Your task to perform on an android device: delete a single message in the gmail app Image 0: 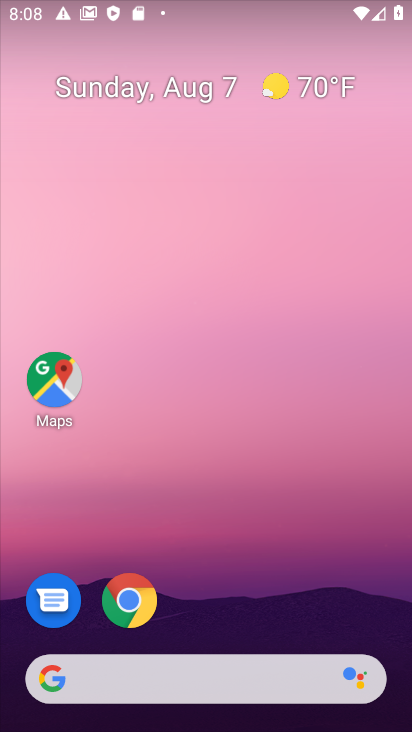
Step 0: drag from (172, 626) to (172, 57)
Your task to perform on an android device: delete a single message in the gmail app Image 1: 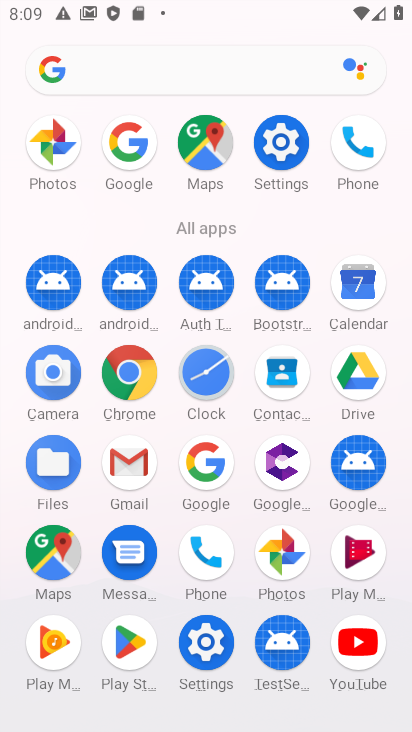
Step 1: click (127, 449)
Your task to perform on an android device: delete a single message in the gmail app Image 2: 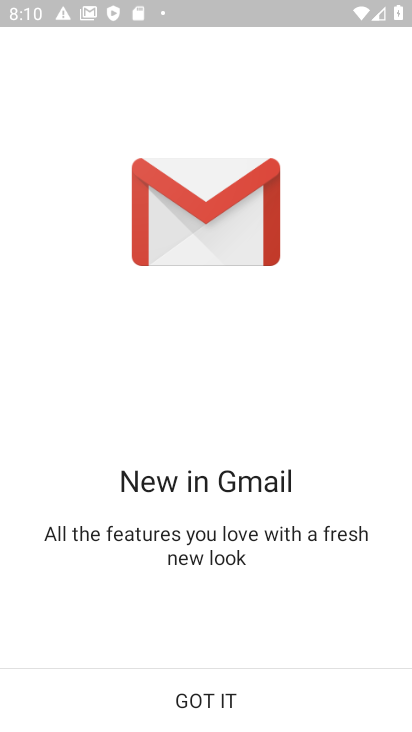
Step 2: click (182, 694)
Your task to perform on an android device: delete a single message in the gmail app Image 3: 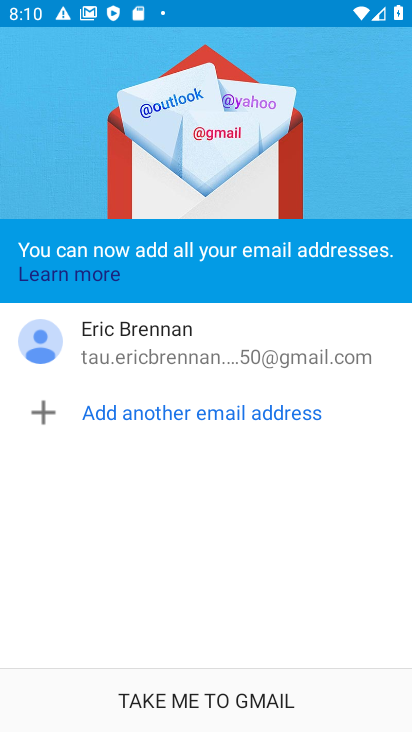
Step 3: click (182, 694)
Your task to perform on an android device: delete a single message in the gmail app Image 4: 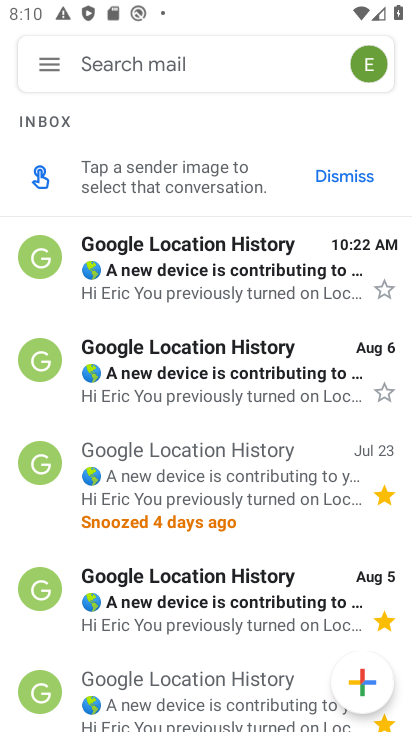
Step 4: click (297, 290)
Your task to perform on an android device: delete a single message in the gmail app Image 5: 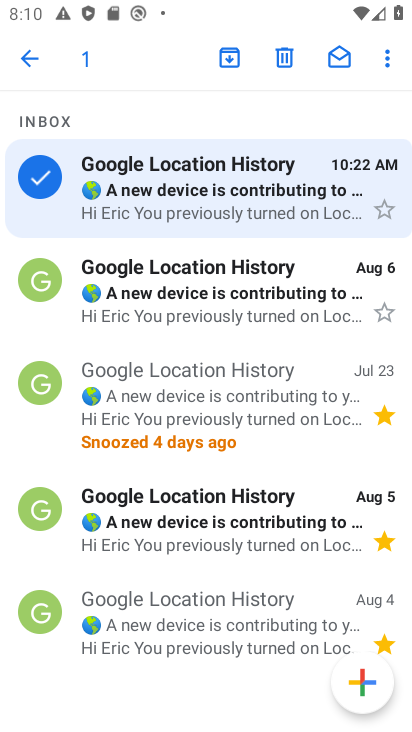
Step 5: click (274, 58)
Your task to perform on an android device: delete a single message in the gmail app Image 6: 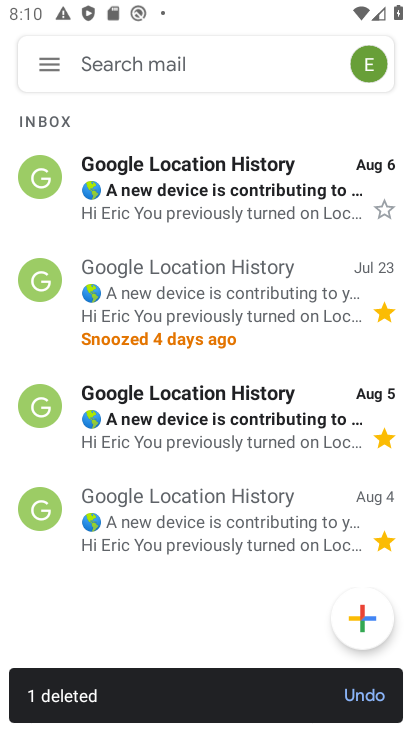
Step 6: task complete